Your task to perform on an android device: turn notification dots off Image 0: 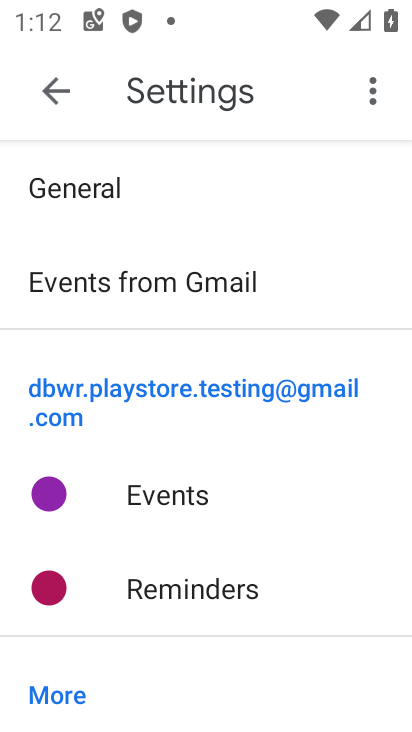
Step 0: press home button
Your task to perform on an android device: turn notification dots off Image 1: 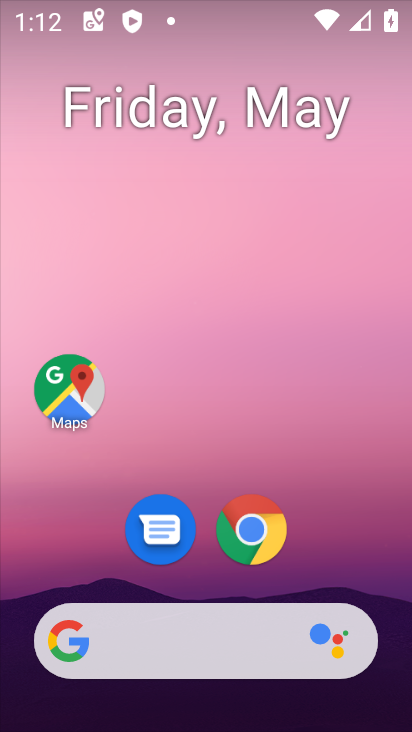
Step 1: drag from (354, 570) to (345, 147)
Your task to perform on an android device: turn notification dots off Image 2: 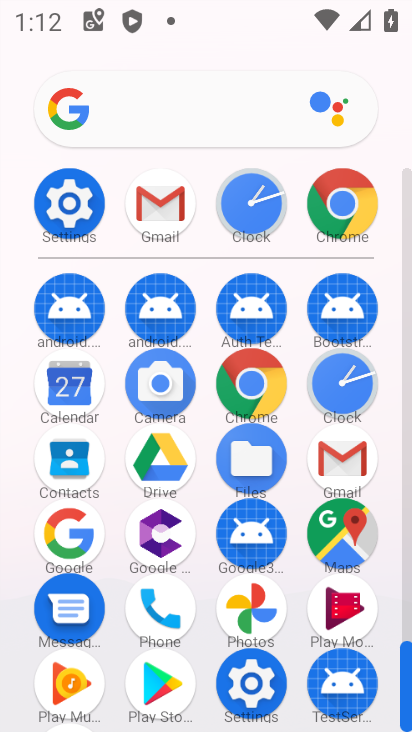
Step 2: click (62, 235)
Your task to perform on an android device: turn notification dots off Image 3: 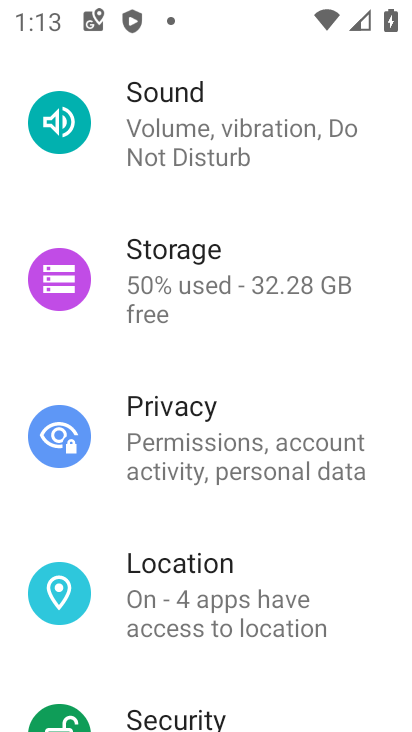
Step 3: drag from (202, 294) to (176, 540)
Your task to perform on an android device: turn notification dots off Image 4: 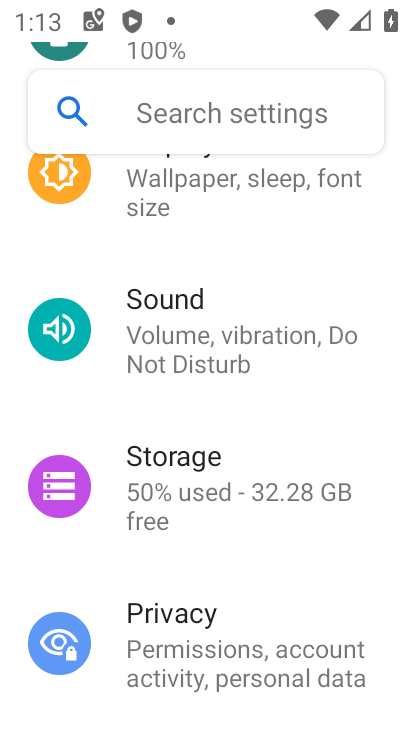
Step 4: drag from (206, 285) to (199, 722)
Your task to perform on an android device: turn notification dots off Image 5: 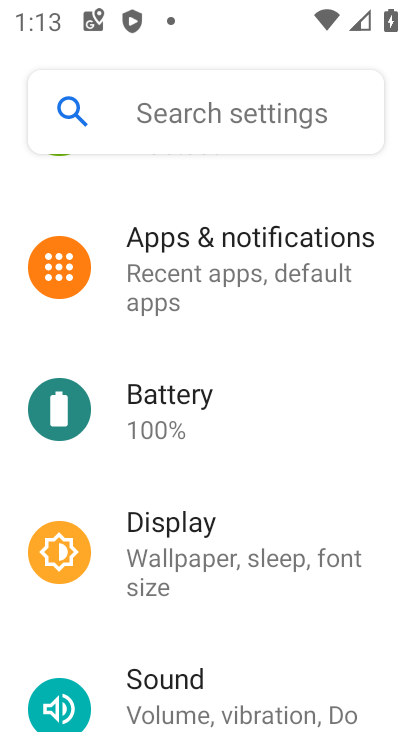
Step 5: click (261, 279)
Your task to perform on an android device: turn notification dots off Image 6: 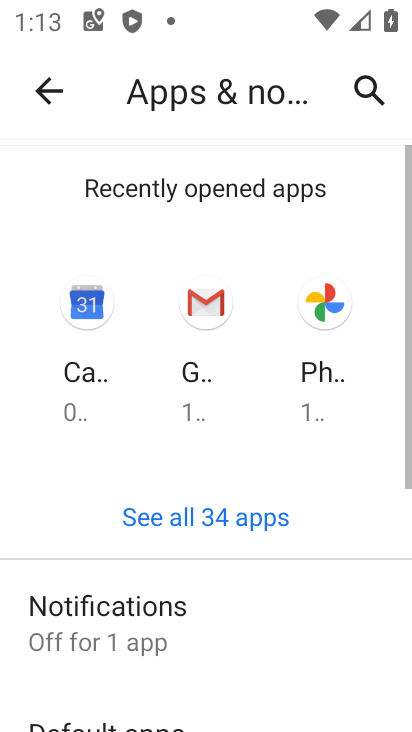
Step 6: drag from (272, 601) to (278, 236)
Your task to perform on an android device: turn notification dots off Image 7: 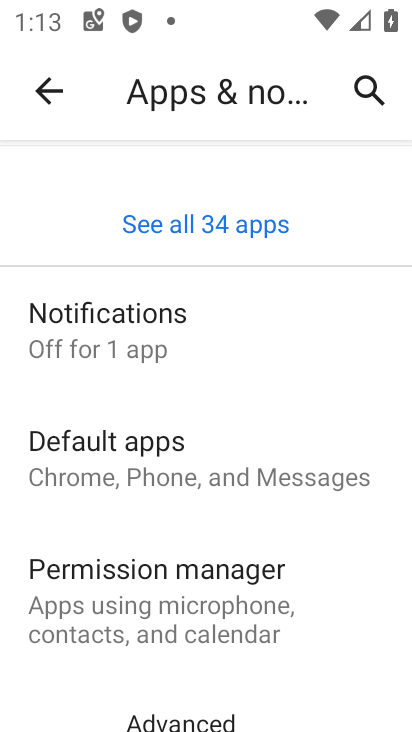
Step 7: click (249, 373)
Your task to perform on an android device: turn notification dots off Image 8: 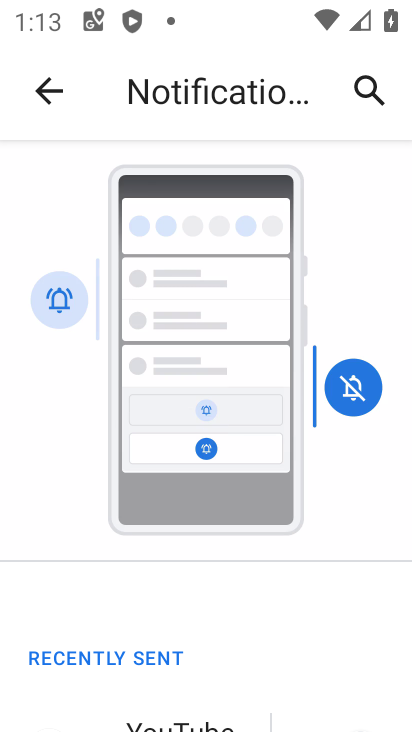
Step 8: drag from (277, 589) to (311, 130)
Your task to perform on an android device: turn notification dots off Image 9: 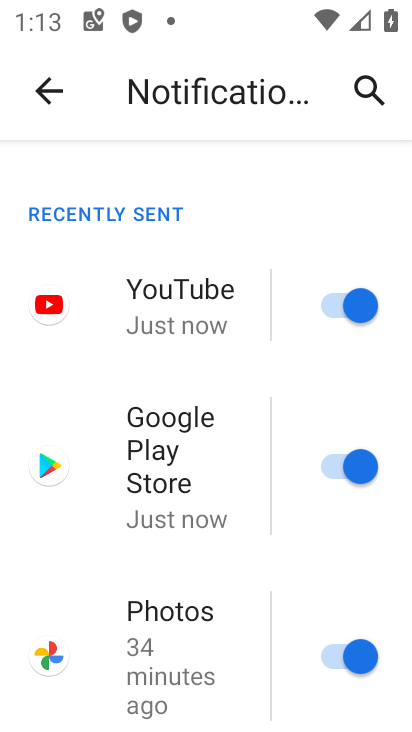
Step 9: drag from (247, 619) to (265, 206)
Your task to perform on an android device: turn notification dots off Image 10: 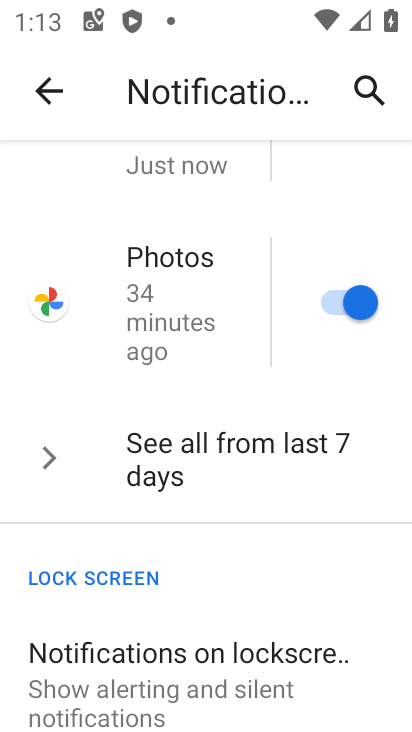
Step 10: drag from (234, 612) to (250, 259)
Your task to perform on an android device: turn notification dots off Image 11: 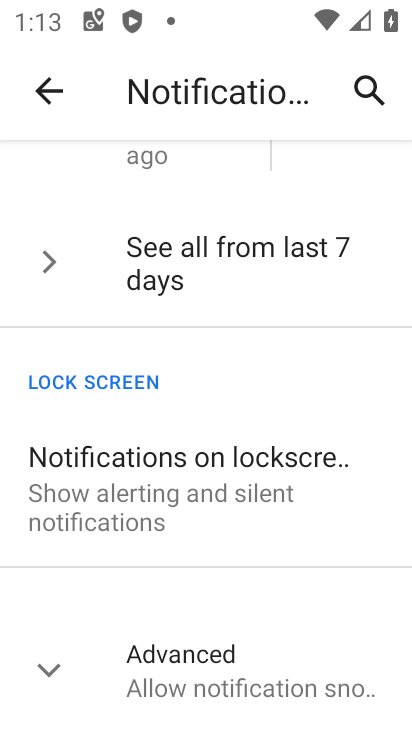
Step 11: click (243, 624)
Your task to perform on an android device: turn notification dots off Image 12: 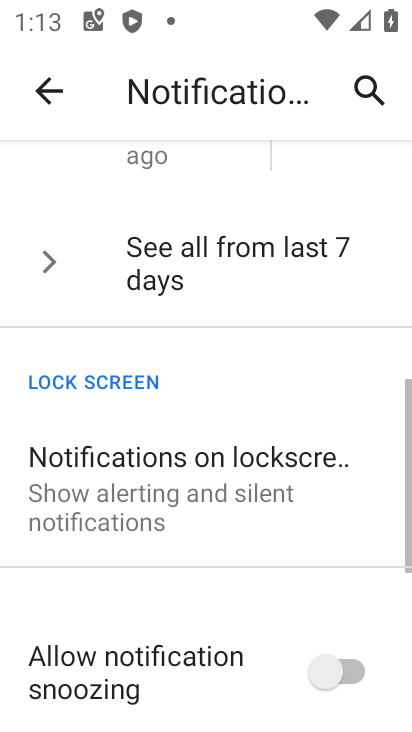
Step 12: drag from (243, 581) to (244, 120)
Your task to perform on an android device: turn notification dots off Image 13: 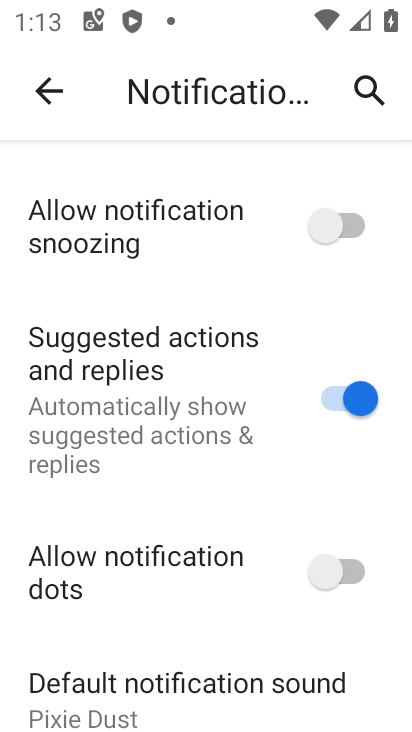
Step 13: click (329, 518)
Your task to perform on an android device: turn notification dots off Image 14: 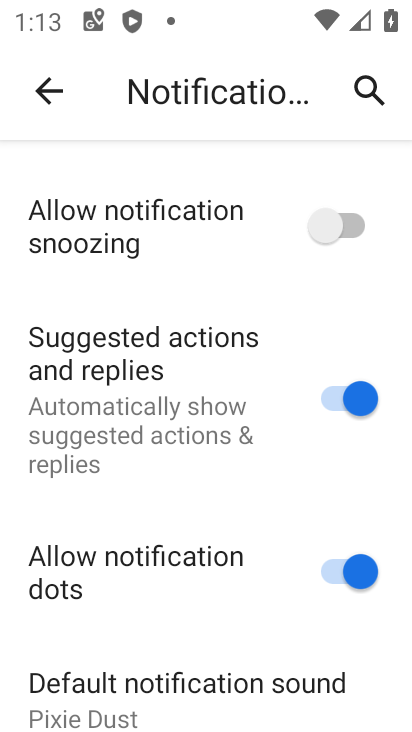
Step 14: task complete